Your task to perform on an android device: open app "Life360: Find Family & Friends" Image 0: 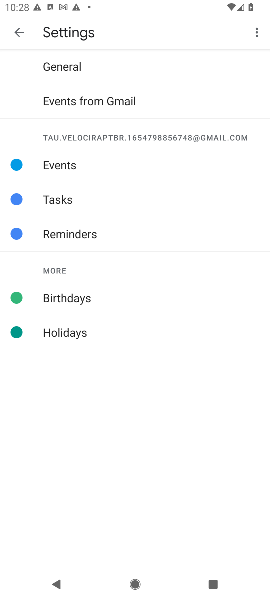
Step 0: press home button
Your task to perform on an android device: open app "Life360: Find Family & Friends" Image 1: 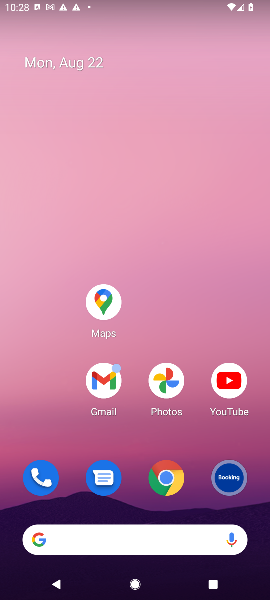
Step 1: drag from (132, 492) to (138, 22)
Your task to perform on an android device: open app "Life360: Find Family & Friends" Image 2: 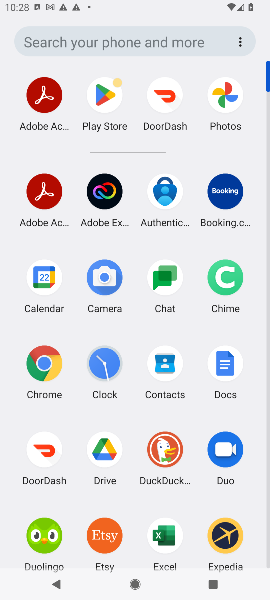
Step 2: click (118, 77)
Your task to perform on an android device: open app "Life360: Find Family & Friends" Image 3: 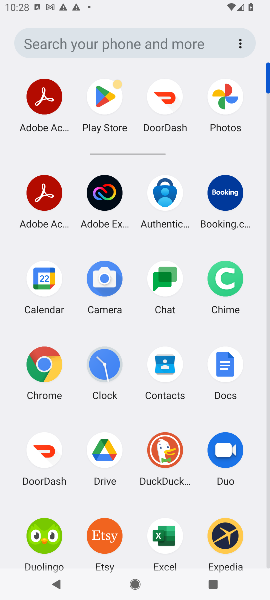
Step 3: click (103, 100)
Your task to perform on an android device: open app "Life360: Find Family & Friends" Image 4: 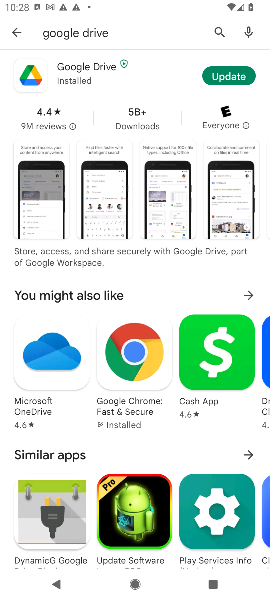
Step 4: click (217, 35)
Your task to perform on an android device: open app "Life360: Find Family & Friends" Image 5: 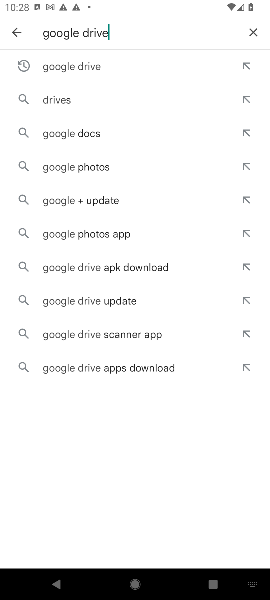
Step 5: click (263, 35)
Your task to perform on an android device: open app "Life360: Find Family & Friends" Image 6: 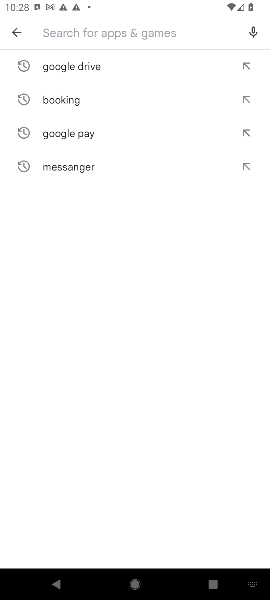
Step 6: type "life 360"
Your task to perform on an android device: open app "Life360: Find Family & Friends" Image 7: 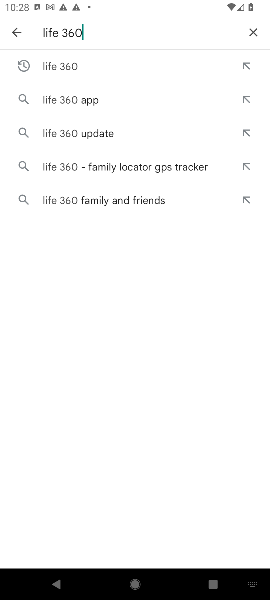
Step 7: click (80, 59)
Your task to perform on an android device: open app "Life360: Find Family & Friends" Image 8: 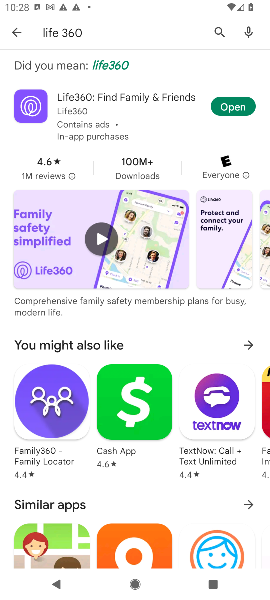
Step 8: click (236, 101)
Your task to perform on an android device: open app "Life360: Find Family & Friends" Image 9: 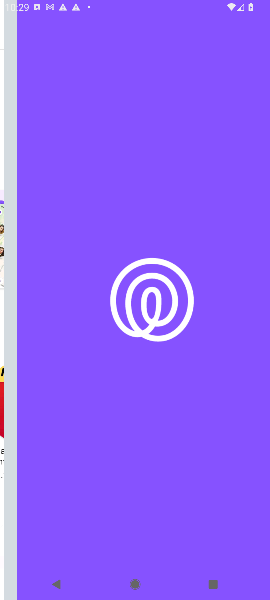
Step 9: task complete